Your task to perform on an android device: Search for sushi restaurants on Maps Image 0: 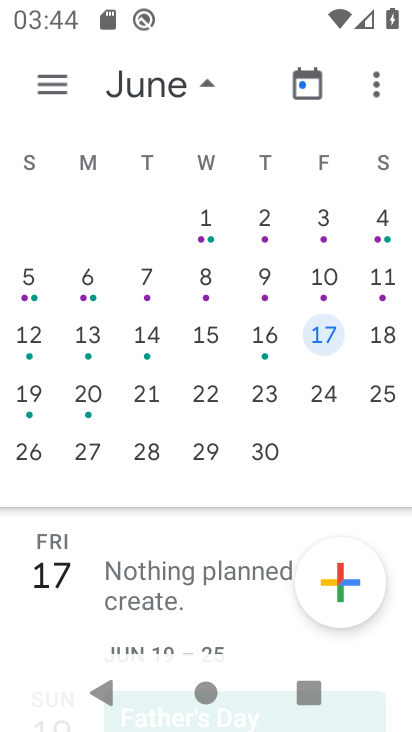
Step 0: press back button
Your task to perform on an android device: Search for sushi restaurants on Maps Image 1: 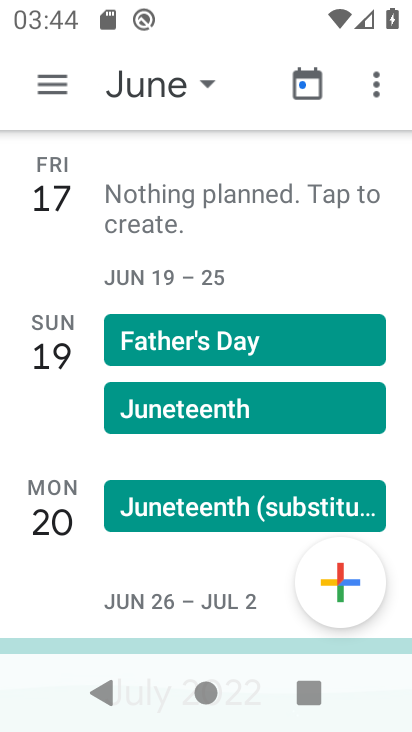
Step 1: press back button
Your task to perform on an android device: Search for sushi restaurants on Maps Image 2: 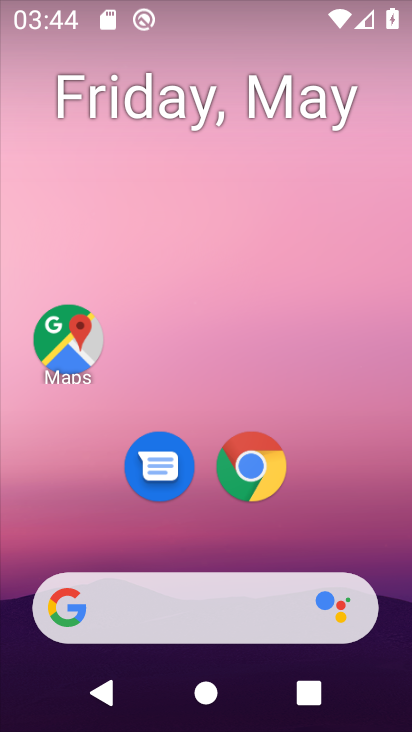
Step 2: click (53, 342)
Your task to perform on an android device: Search for sushi restaurants on Maps Image 3: 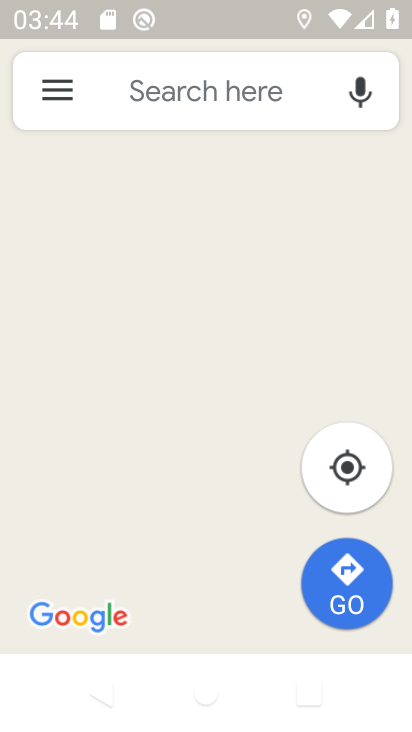
Step 3: click (175, 107)
Your task to perform on an android device: Search for sushi restaurants on Maps Image 4: 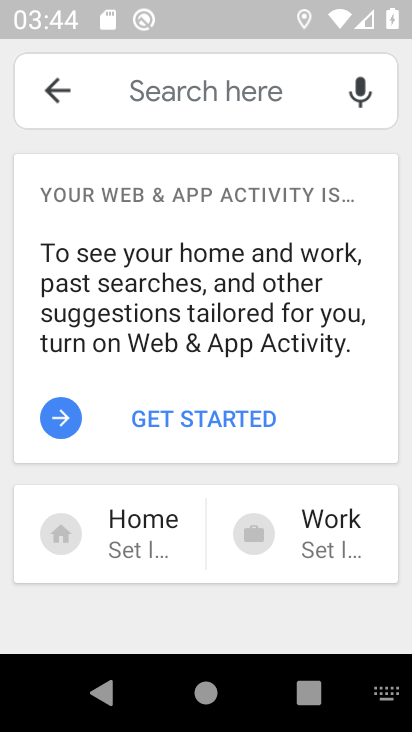
Step 4: type "sushi restaurants"
Your task to perform on an android device: Search for sushi restaurants on Maps Image 5: 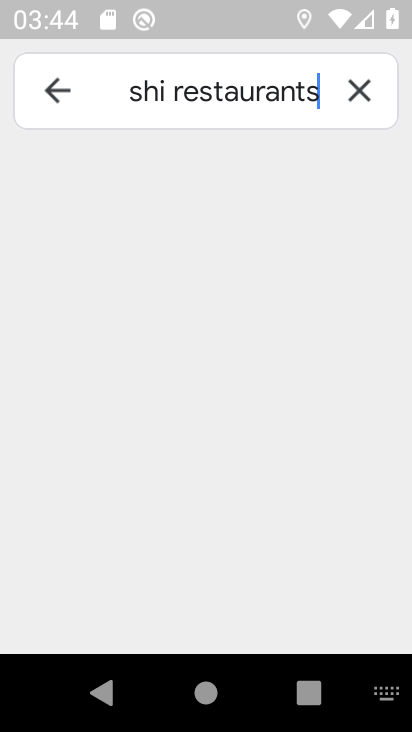
Step 5: click (140, 90)
Your task to perform on an android device: Search for sushi restaurants on Maps Image 6: 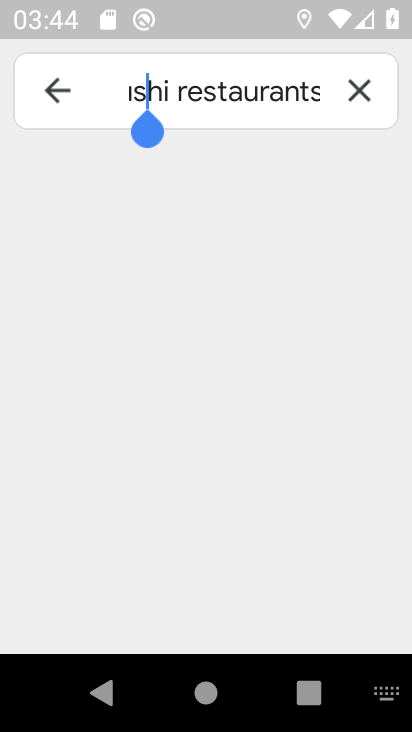
Step 6: click (365, 83)
Your task to perform on an android device: Search for sushi restaurants on Maps Image 7: 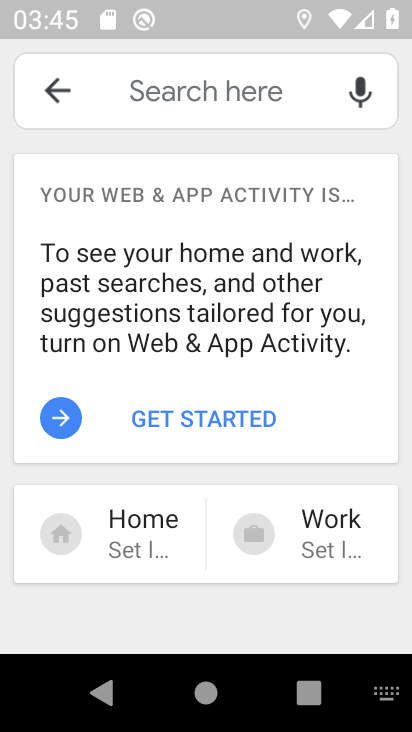
Step 7: type "sushi restaurants "
Your task to perform on an android device: Search for sushi restaurants on Maps Image 8: 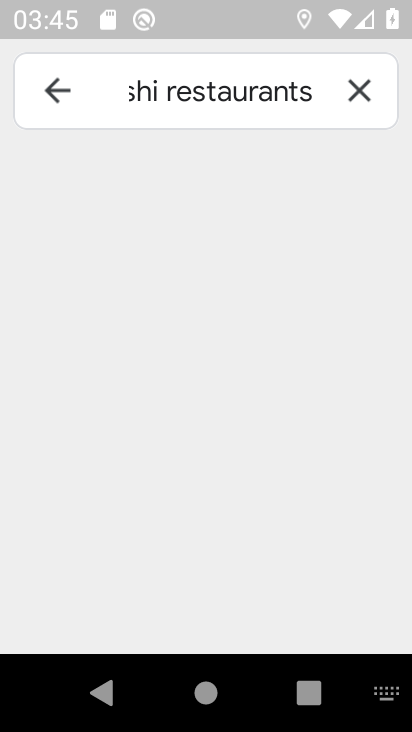
Step 8: task complete